Your task to perform on an android device: Search for Italian restaurants on Maps Image 0: 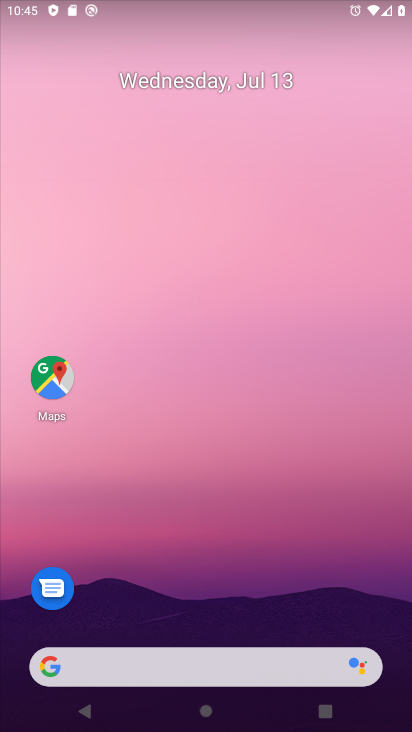
Step 0: click (56, 395)
Your task to perform on an android device: Search for Italian restaurants on Maps Image 1: 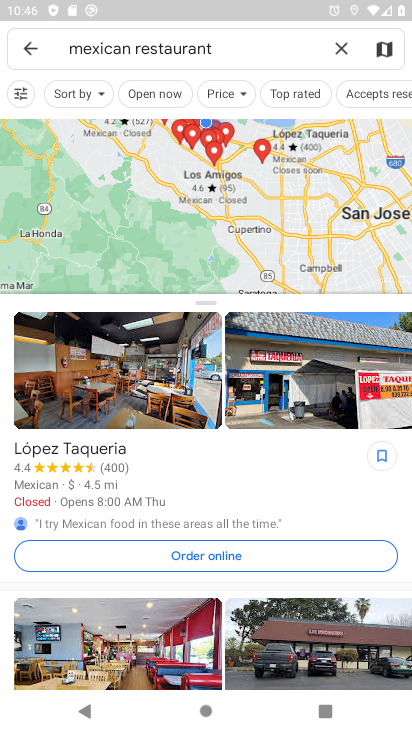
Step 1: click (339, 48)
Your task to perform on an android device: Search for Italian restaurants on Maps Image 2: 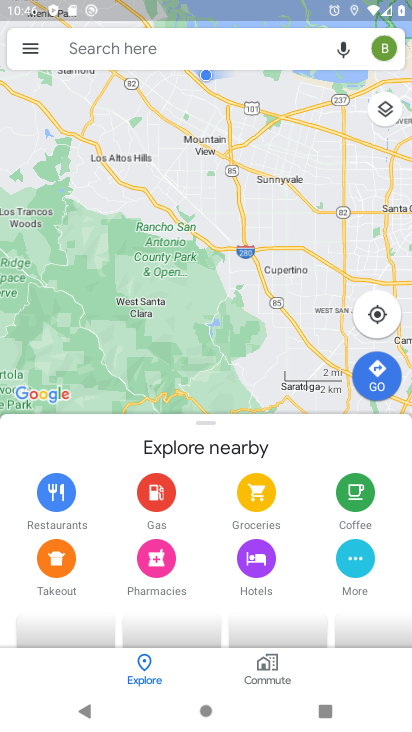
Step 2: click (289, 53)
Your task to perform on an android device: Search for Italian restaurants on Maps Image 3: 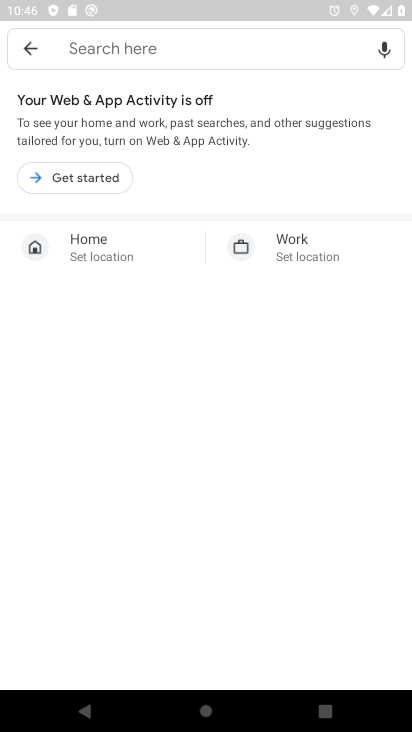
Step 3: type "italian rest"
Your task to perform on an android device: Search for Italian restaurants on Maps Image 4: 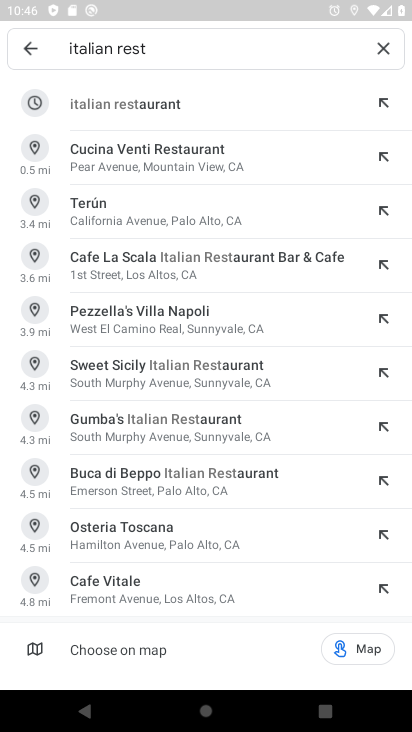
Step 4: click (204, 118)
Your task to perform on an android device: Search for Italian restaurants on Maps Image 5: 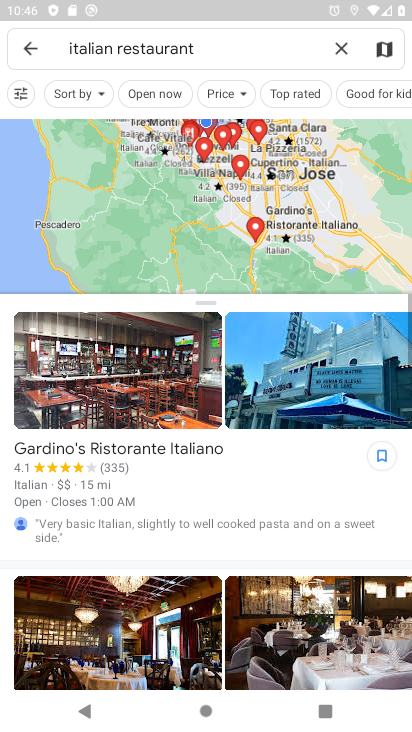
Step 5: task complete